Your task to perform on an android device: Open the stopwatch Image 0: 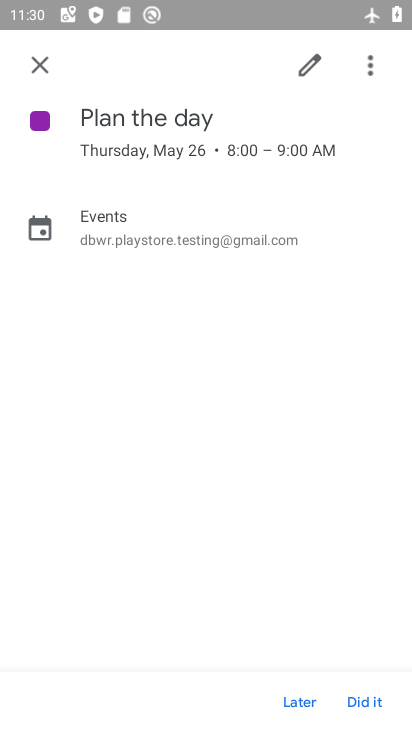
Step 0: press home button
Your task to perform on an android device: Open the stopwatch Image 1: 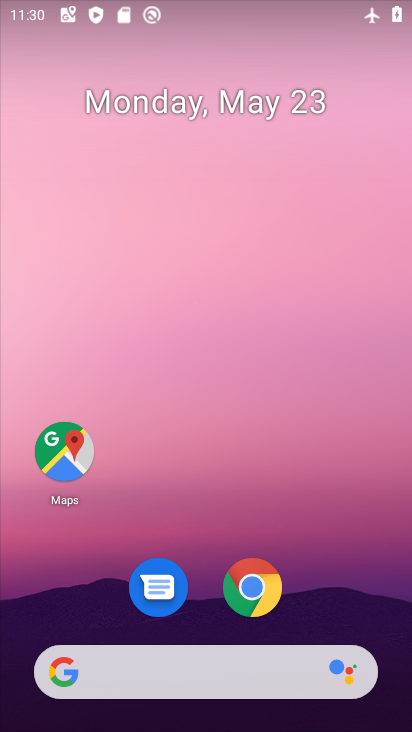
Step 1: drag from (379, 609) to (274, 245)
Your task to perform on an android device: Open the stopwatch Image 2: 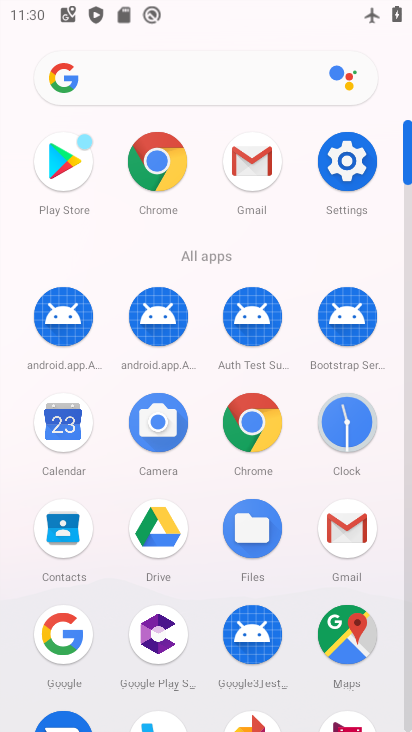
Step 2: click (347, 425)
Your task to perform on an android device: Open the stopwatch Image 3: 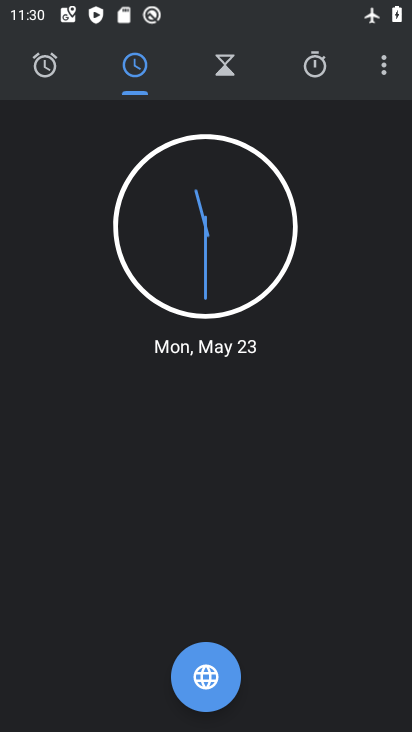
Step 3: click (322, 55)
Your task to perform on an android device: Open the stopwatch Image 4: 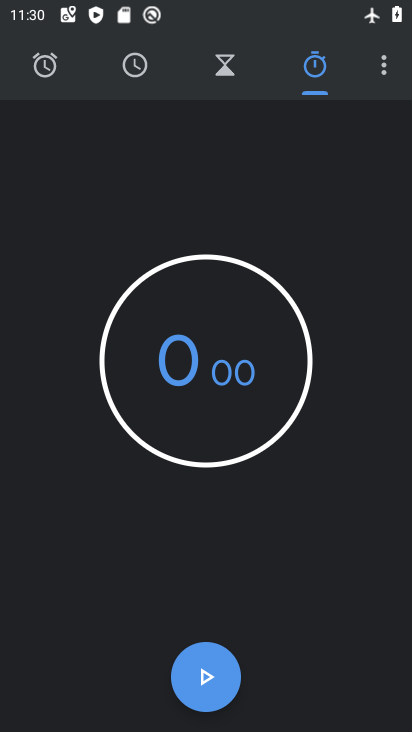
Step 4: task complete